Your task to perform on an android device: find which apps use the phone's location Image 0: 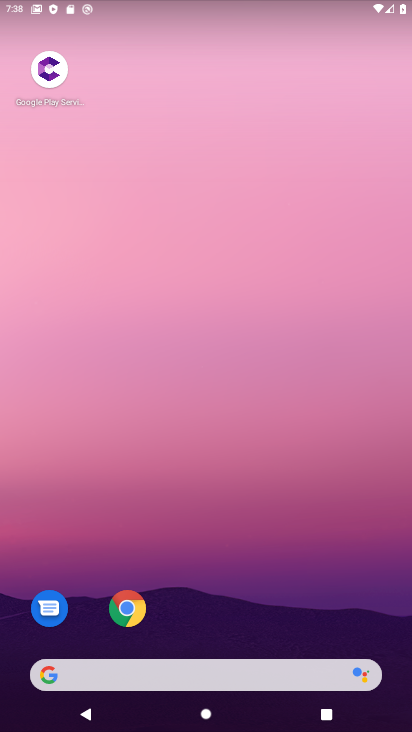
Step 0: drag from (247, 586) to (269, 174)
Your task to perform on an android device: find which apps use the phone's location Image 1: 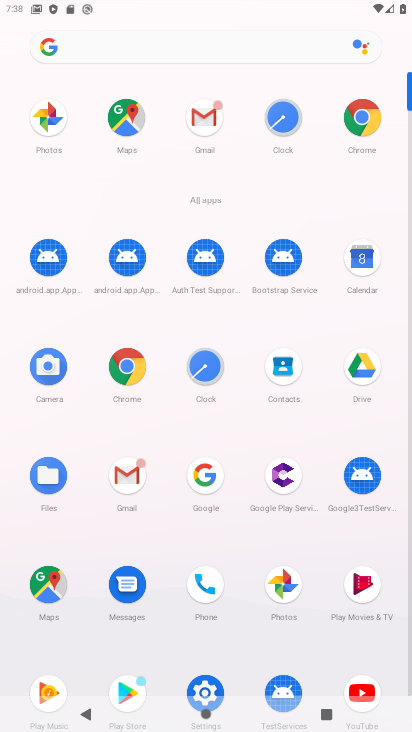
Step 1: click (202, 680)
Your task to perform on an android device: find which apps use the phone's location Image 2: 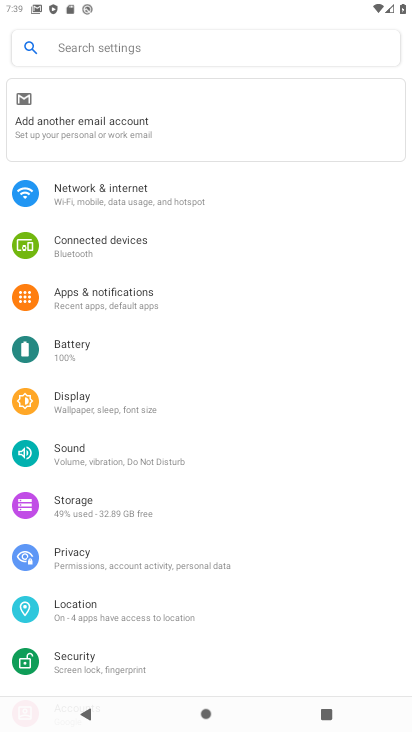
Step 2: click (153, 619)
Your task to perform on an android device: find which apps use the phone's location Image 3: 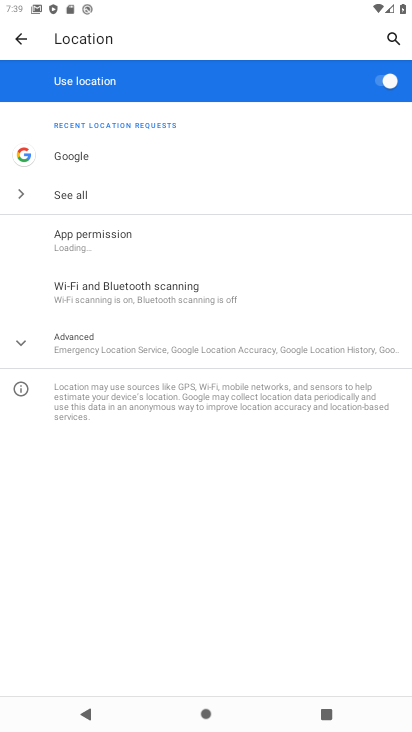
Step 3: click (188, 165)
Your task to perform on an android device: find which apps use the phone's location Image 4: 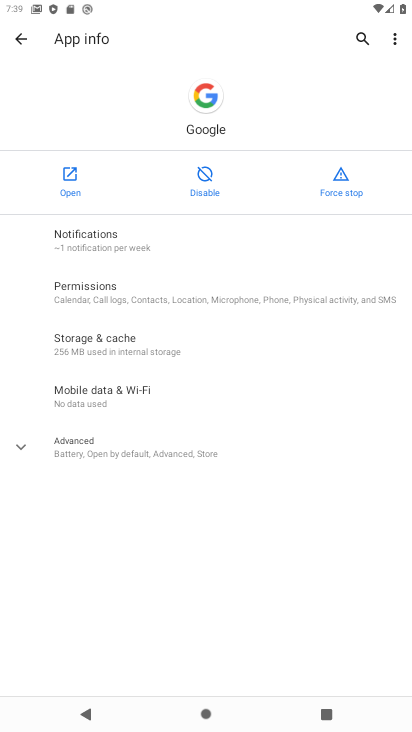
Step 4: click (147, 295)
Your task to perform on an android device: find which apps use the phone's location Image 5: 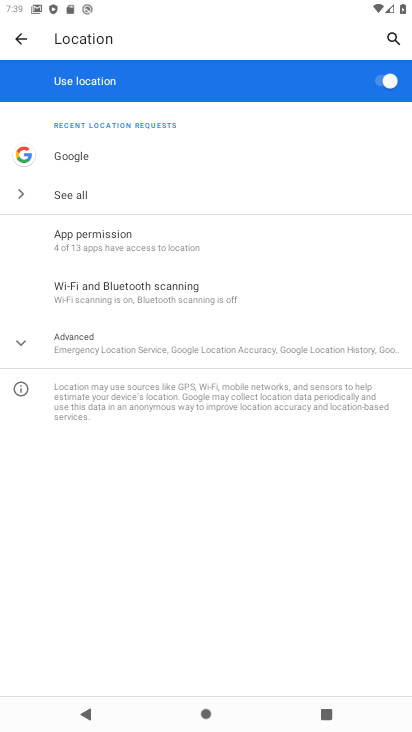
Step 5: click (77, 155)
Your task to perform on an android device: find which apps use the phone's location Image 6: 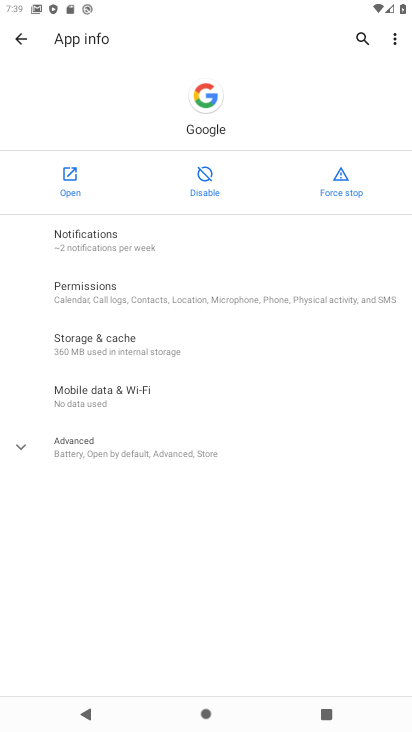
Step 6: click (113, 309)
Your task to perform on an android device: find which apps use the phone's location Image 7: 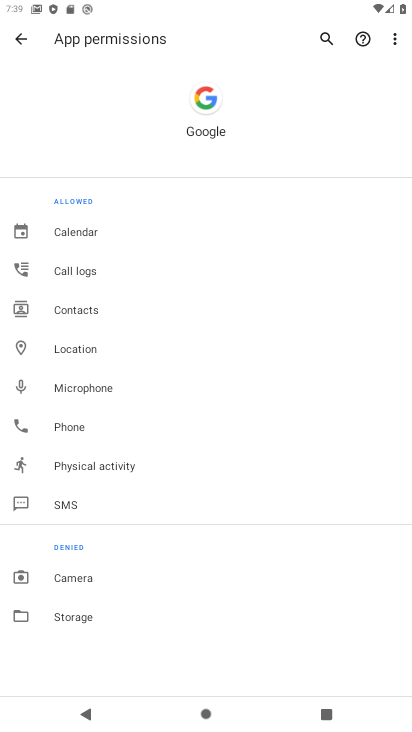
Step 7: click (84, 353)
Your task to perform on an android device: find which apps use the phone's location Image 8: 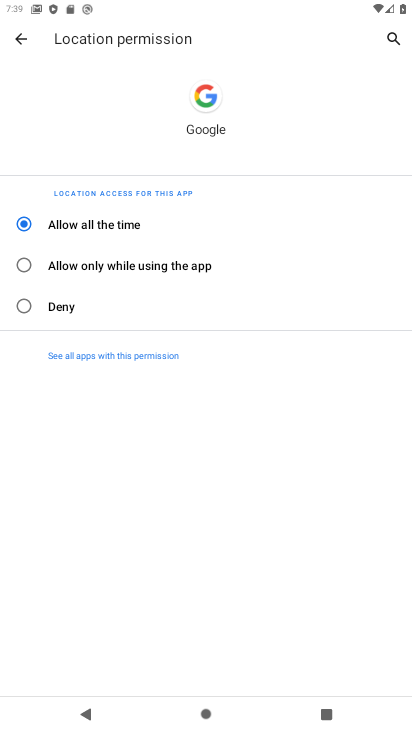
Step 8: task complete